Your task to perform on an android device: create a new album in the google photos Image 0: 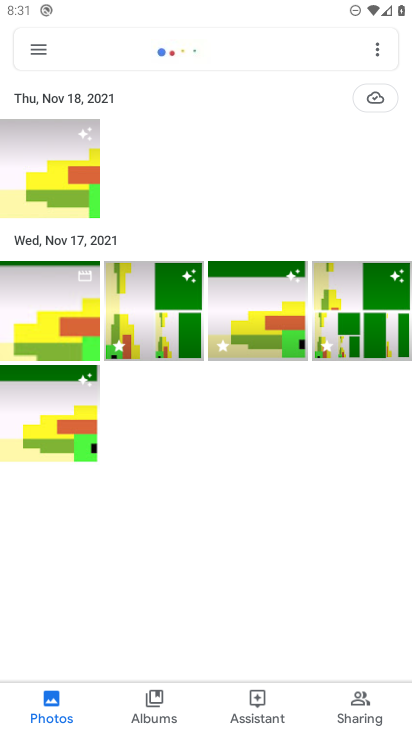
Step 0: press home button
Your task to perform on an android device: create a new album in the google photos Image 1: 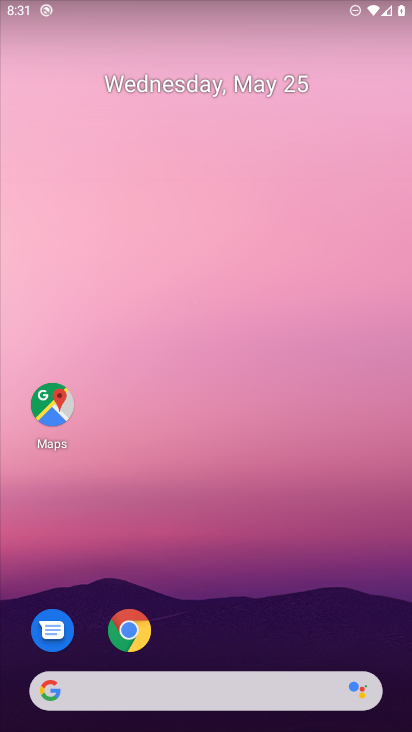
Step 1: drag from (177, 674) to (209, 277)
Your task to perform on an android device: create a new album in the google photos Image 2: 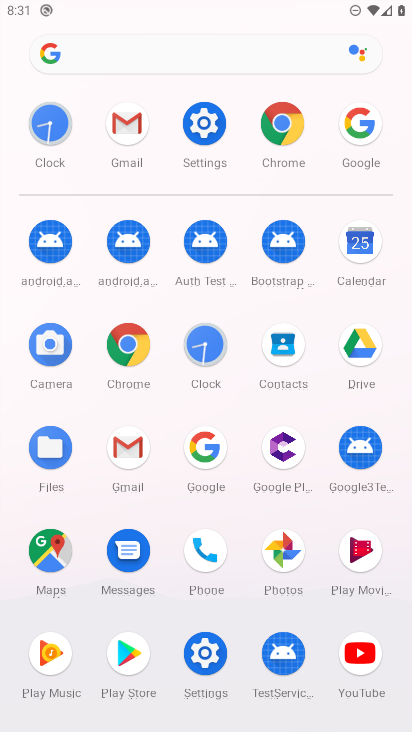
Step 2: click (290, 548)
Your task to perform on an android device: create a new album in the google photos Image 3: 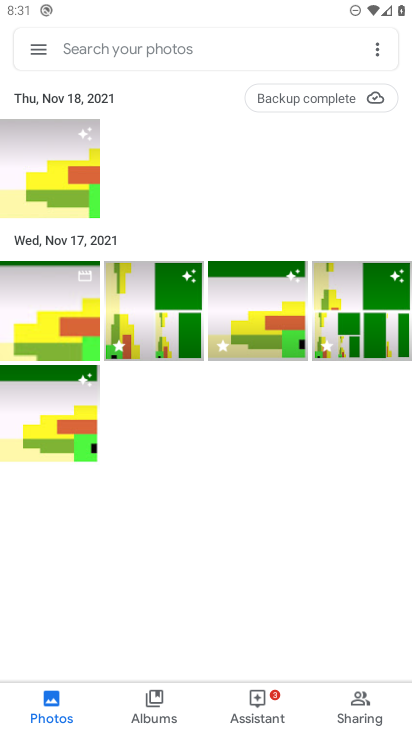
Step 3: click (153, 701)
Your task to perform on an android device: create a new album in the google photos Image 4: 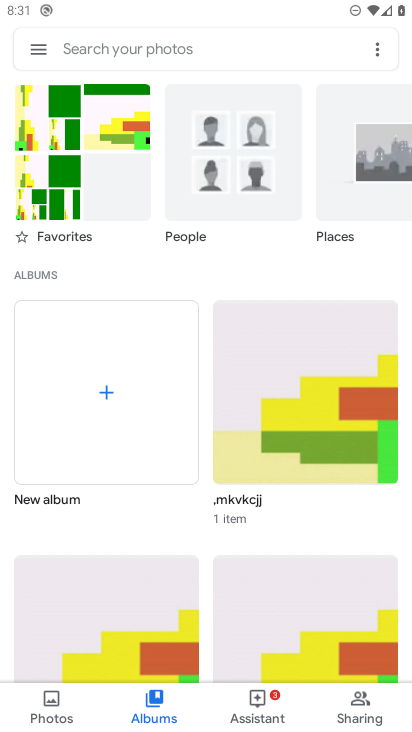
Step 4: click (124, 408)
Your task to perform on an android device: create a new album in the google photos Image 5: 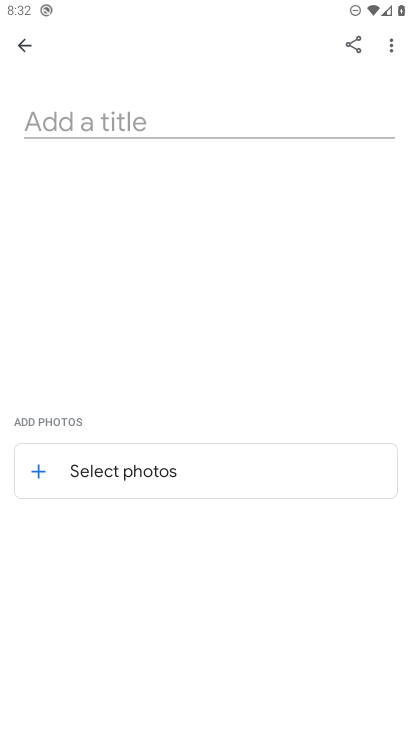
Step 5: click (112, 111)
Your task to perform on an android device: create a new album in the google photos Image 6: 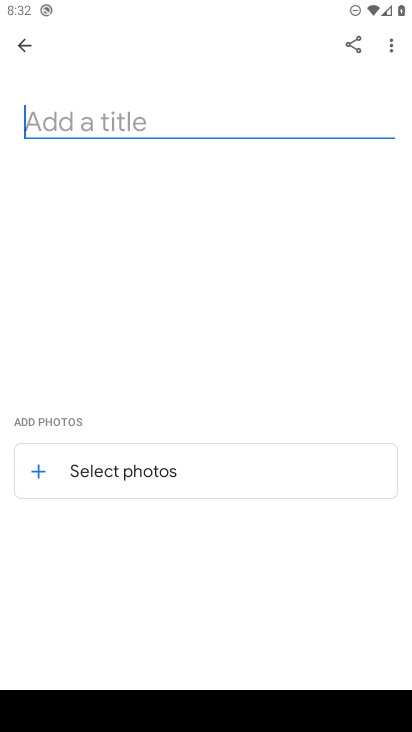
Step 6: type "lipi"
Your task to perform on an android device: create a new album in the google photos Image 7: 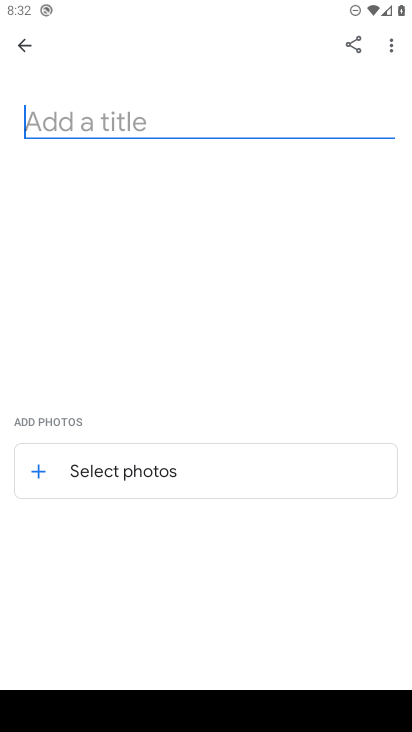
Step 7: click (197, 469)
Your task to perform on an android device: create a new album in the google photos Image 8: 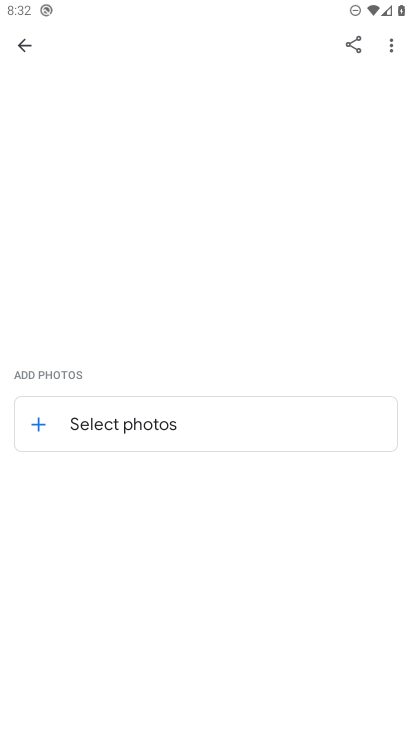
Step 8: click (146, 417)
Your task to perform on an android device: create a new album in the google photos Image 9: 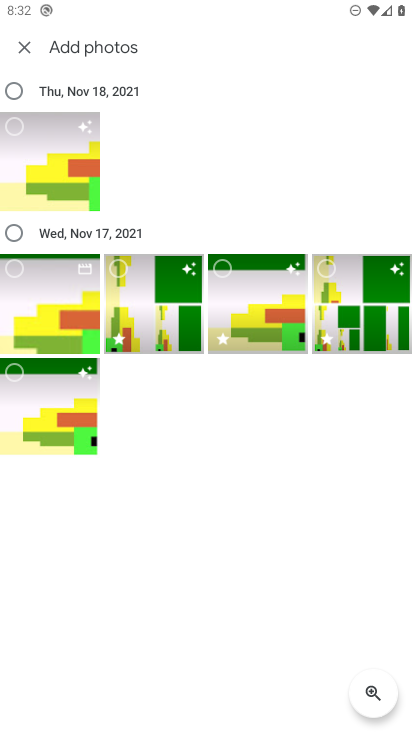
Step 9: click (12, 84)
Your task to perform on an android device: create a new album in the google photos Image 10: 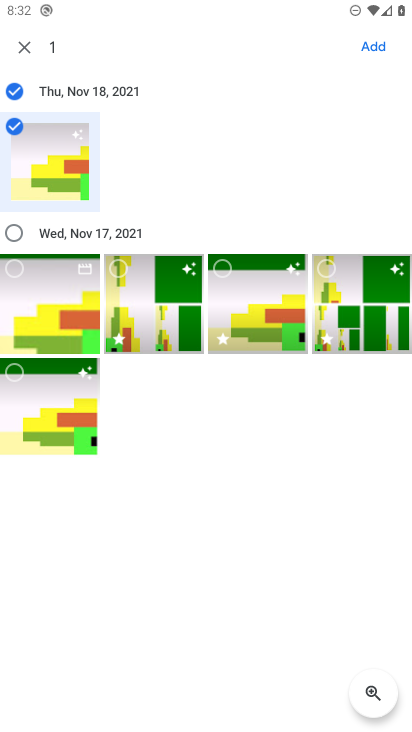
Step 10: click (18, 228)
Your task to perform on an android device: create a new album in the google photos Image 11: 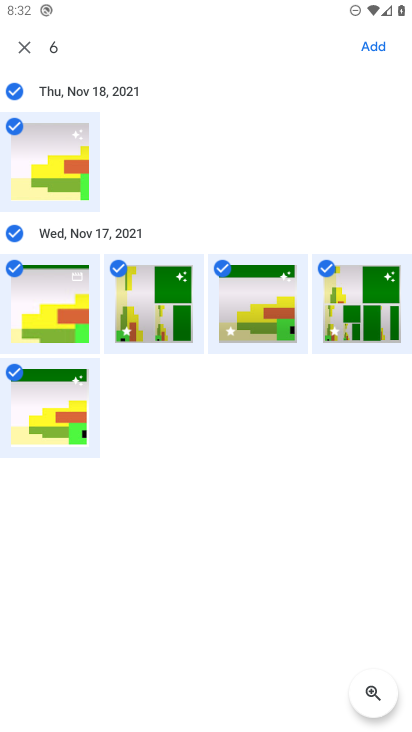
Step 11: click (356, 42)
Your task to perform on an android device: create a new album in the google photos Image 12: 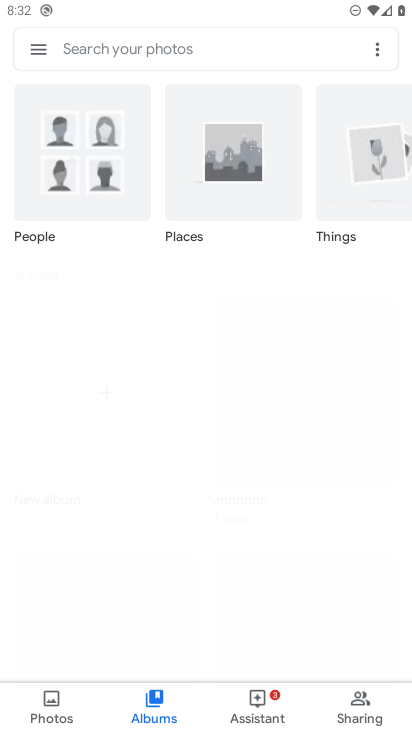
Step 12: task complete